Your task to perform on an android device: allow cookies in the chrome app Image 0: 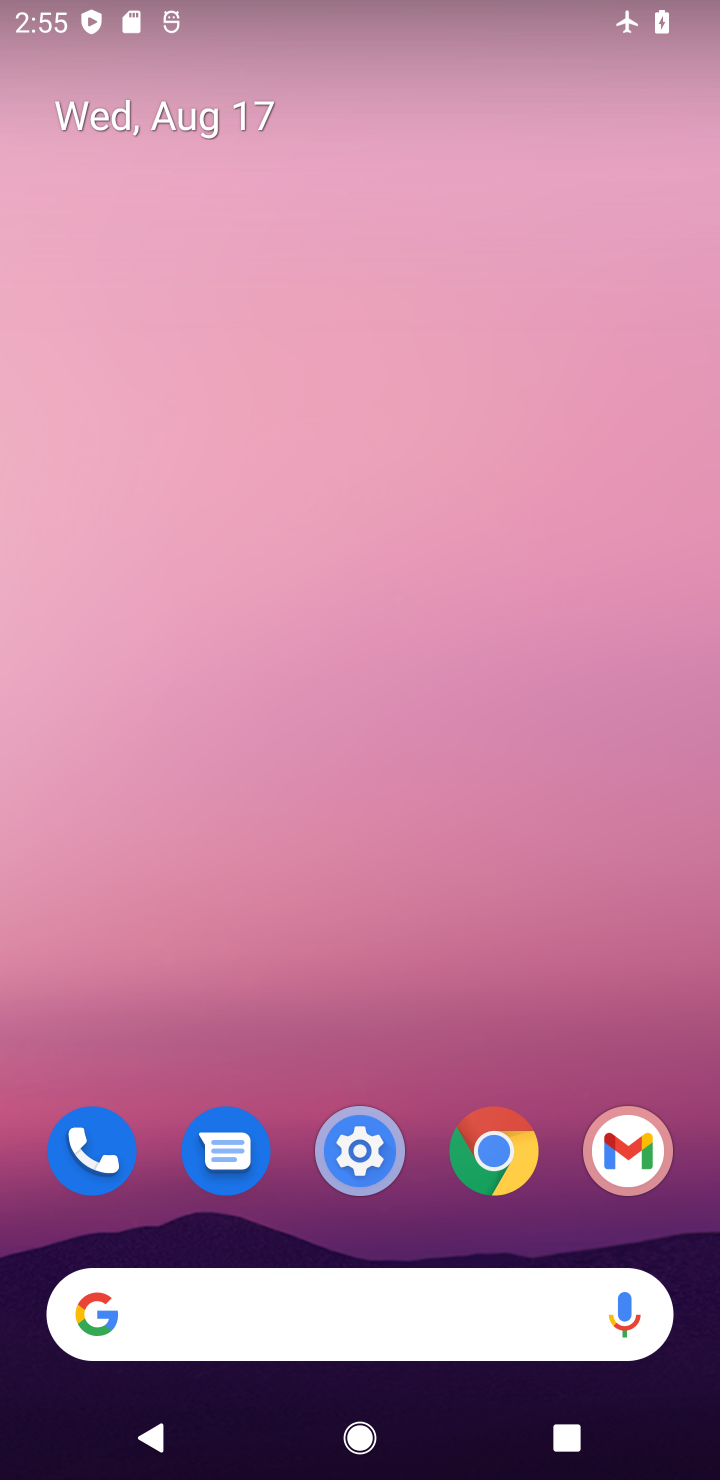
Step 0: drag from (374, 1079) to (397, 388)
Your task to perform on an android device: allow cookies in the chrome app Image 1: 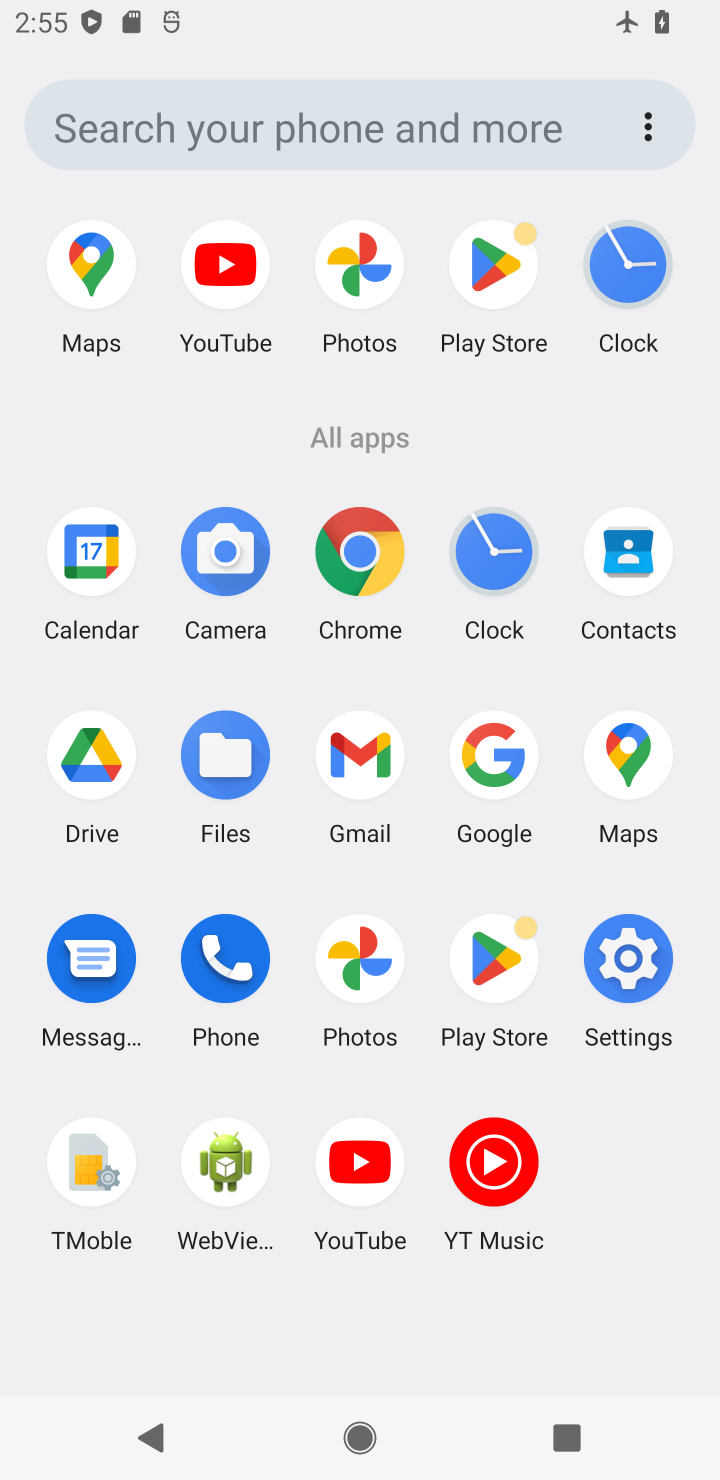
Step 1: click (354, 551)
Your task to perform on an android device: allow cookies in the chrome app Image 2: 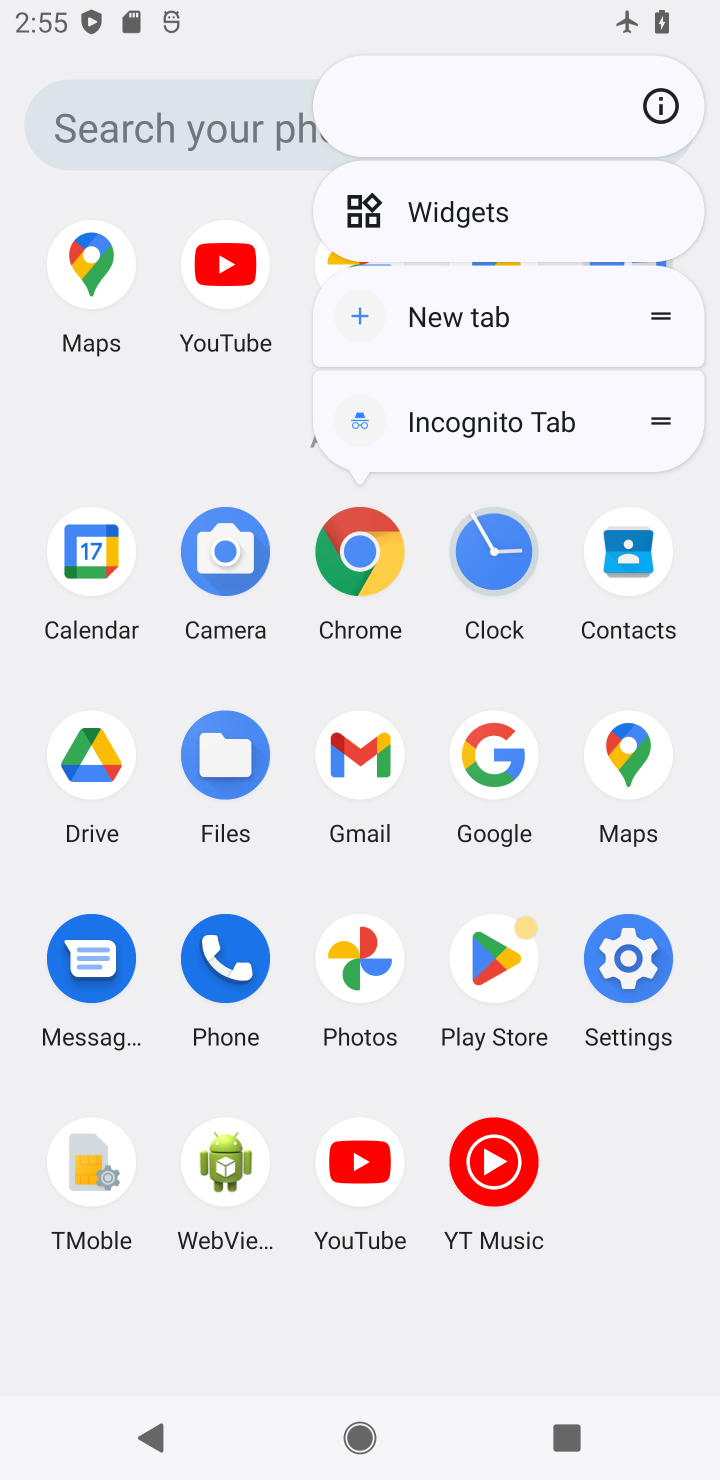
Step 2: click (354, 551)
Your task to perform on an android device: allow cookies in the chrome app Image 3: 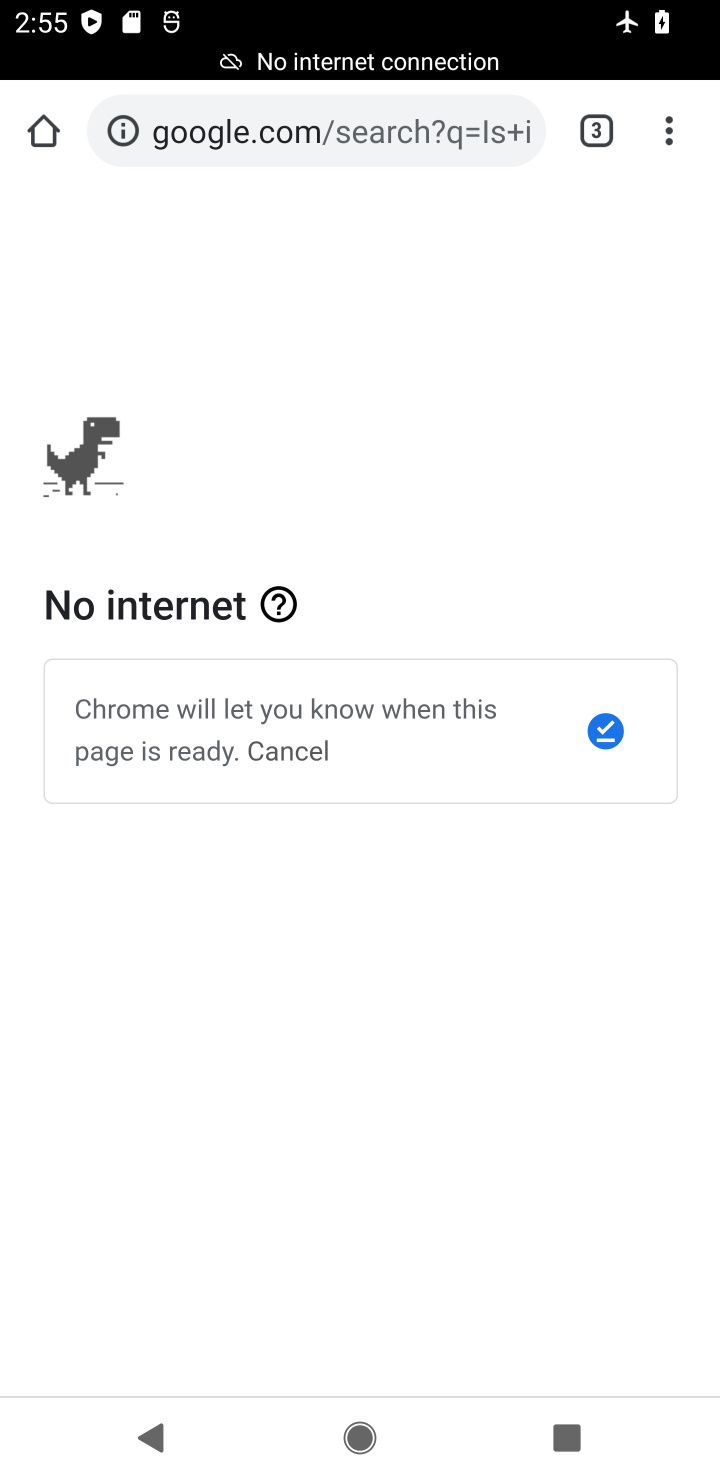
Step 3: click (655, 138)
Your task to perform on an android device: allow cookies in the chrome app Image 4: 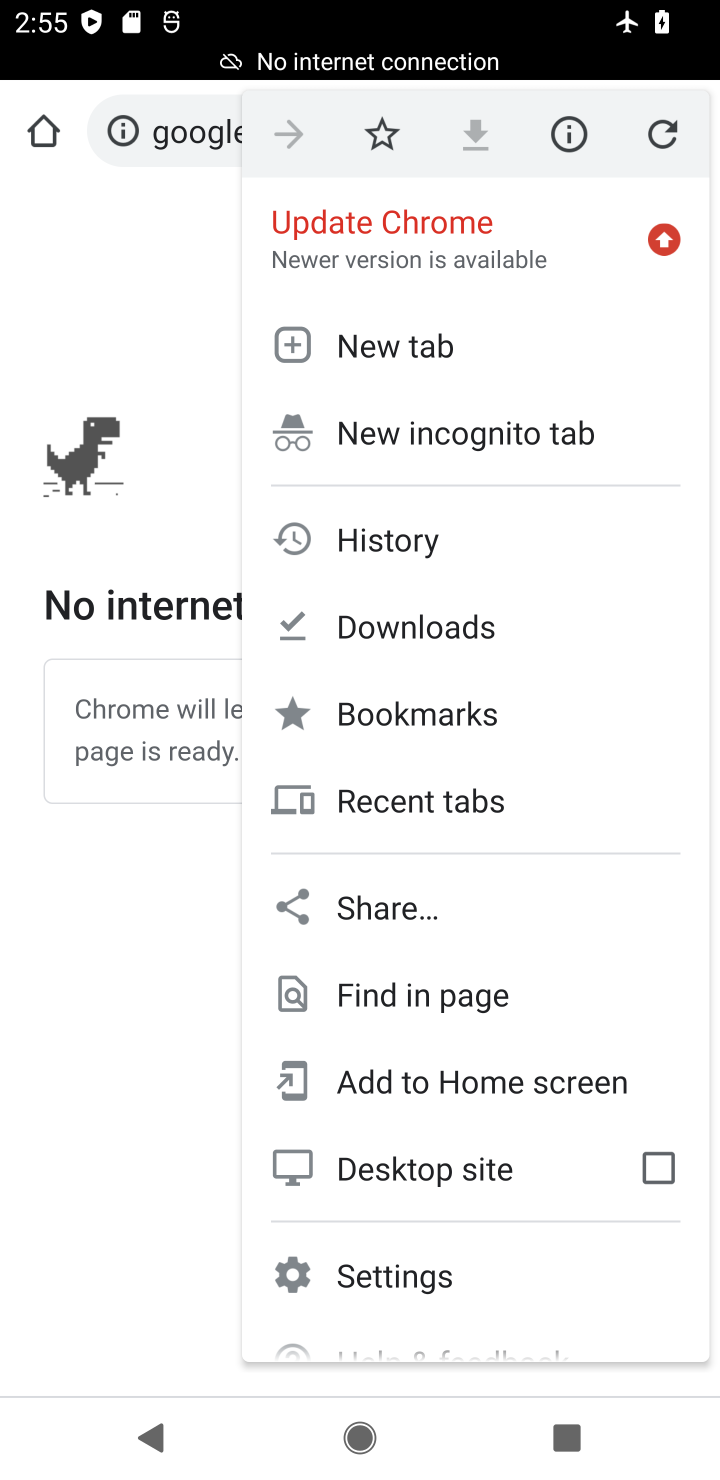
Step 4: click (402, 1283)
Your task to perform on an android device: allow cookies in the chrome app Image 5: 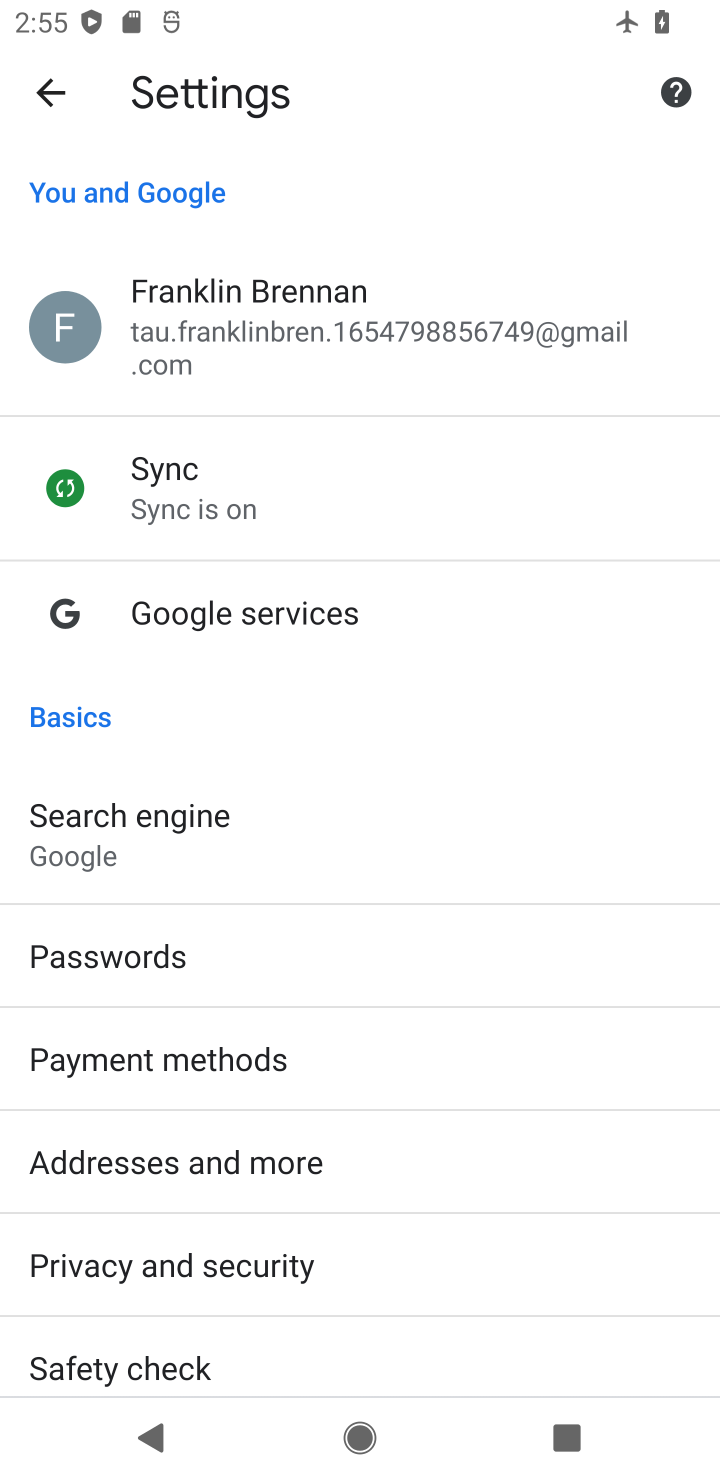
Step 5: click (171, 1272)
Your task to perform on an android device: allow cookies in the chrome app Image 6: 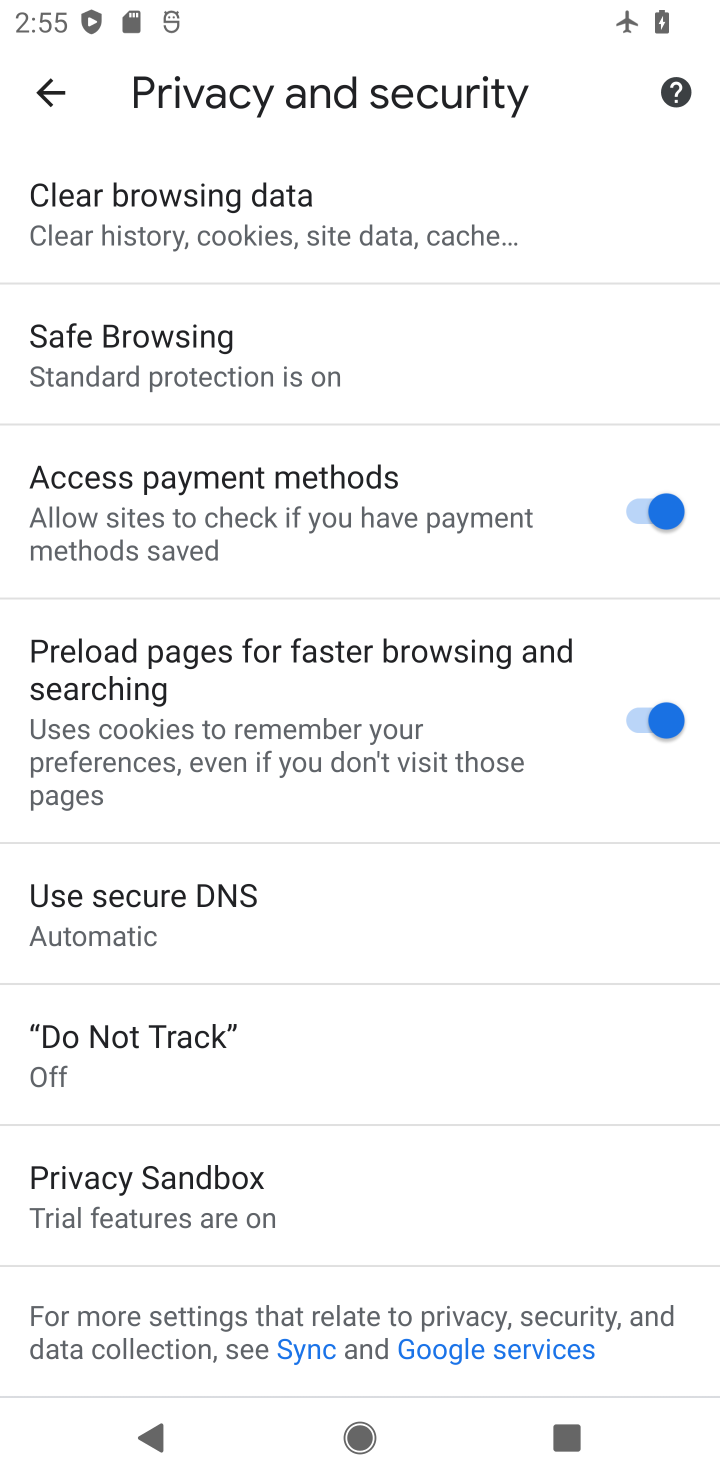
Step 6: click (72, 106)
Your task to perform on an android device: allow cookies in the chrome app Image 7: 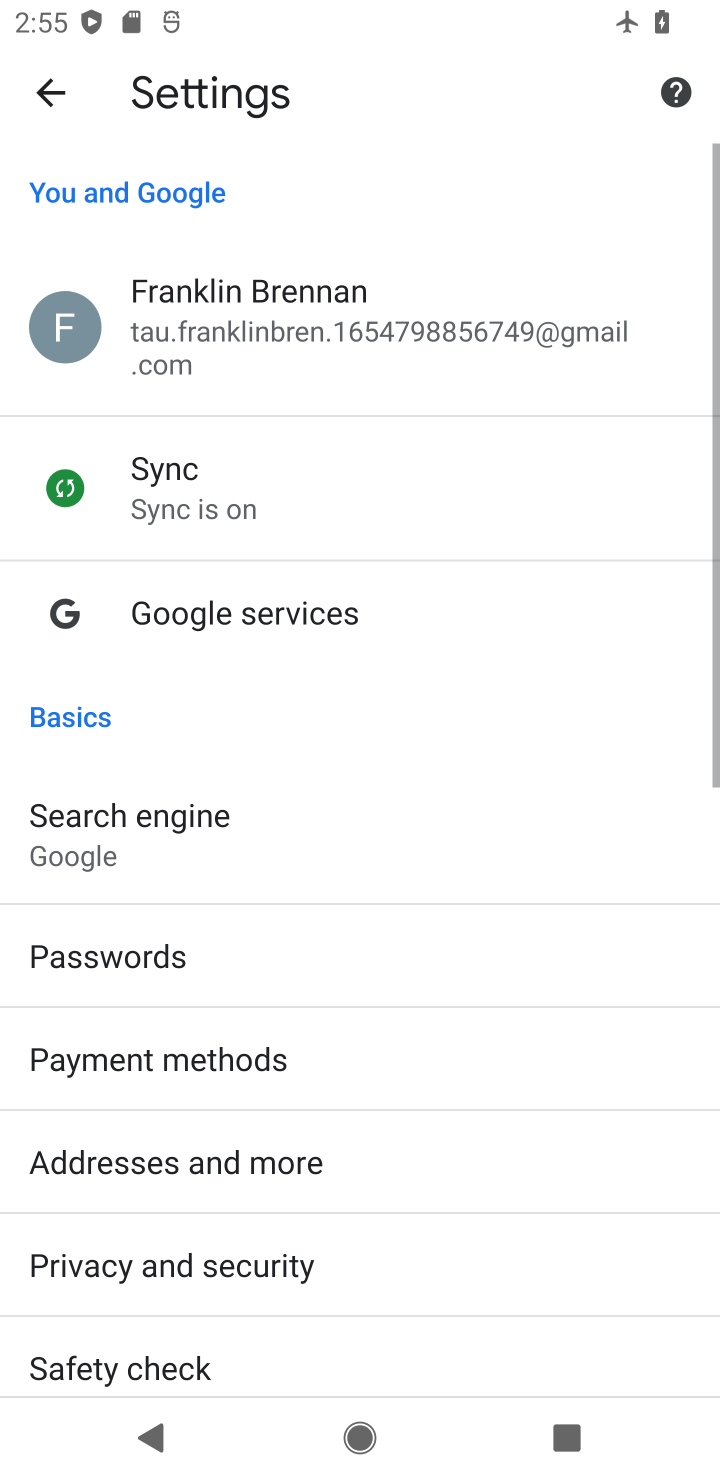
Step 7: drag from (315, 1202) to (376, 325)
Your task to perform on an android device: allow cookies in the chrome app Image 8: 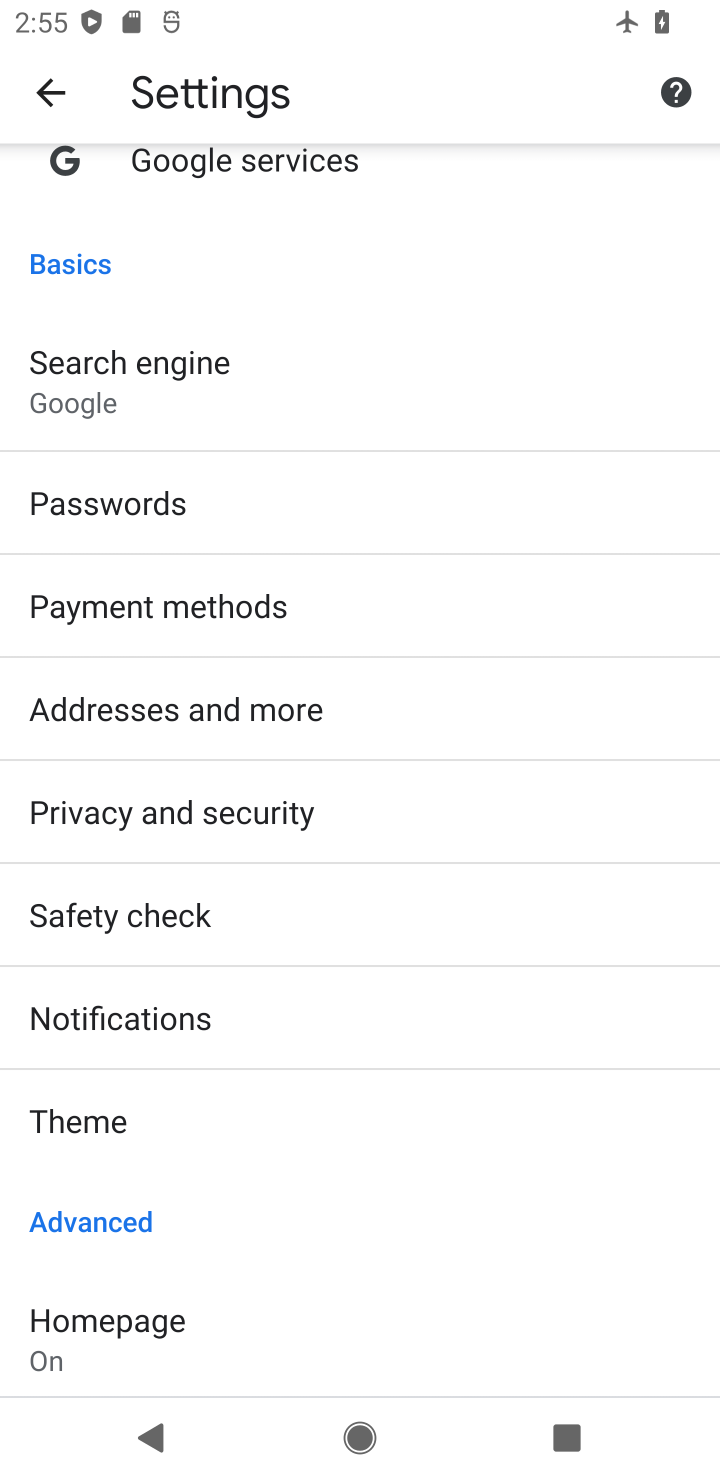
Step 8: drag from (189, 1223) to (348, 382)
Your task to perform on an android device: allow cookies in the chrome app Image 9: 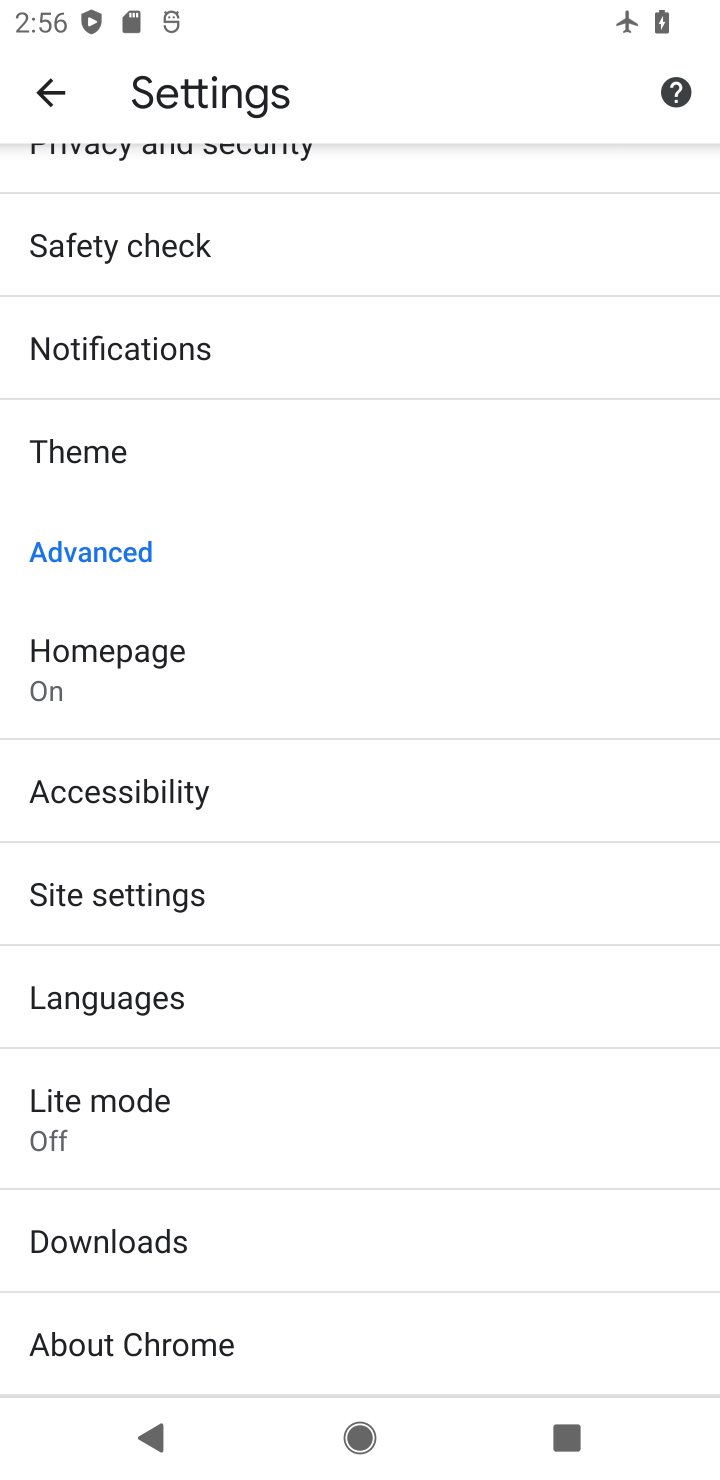
Step 9: click (233, 888)
Your task to perform on an android device: allow cookies in the chrome app Image 10: 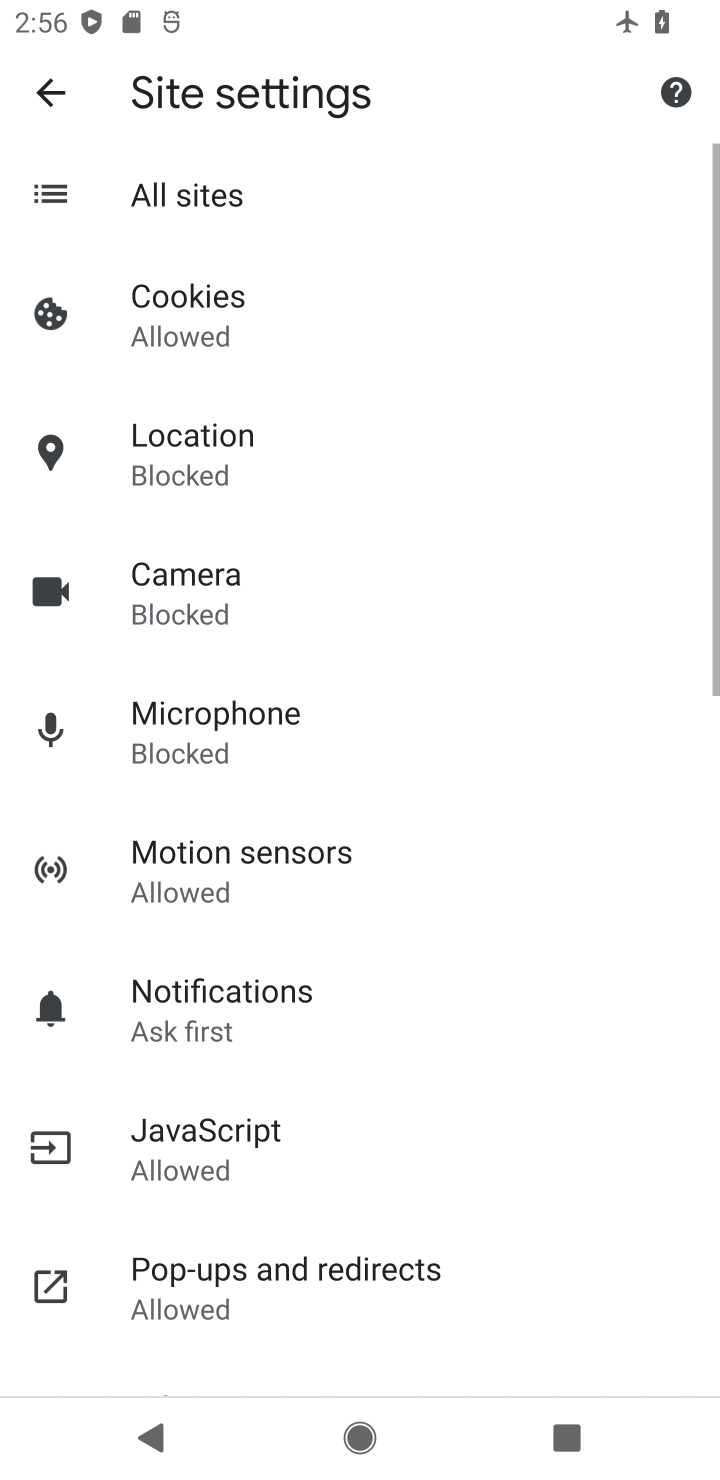
Step 10: click (232, 290)
Your task to perform on an android device: allow cookies in the chrome app Image 11: 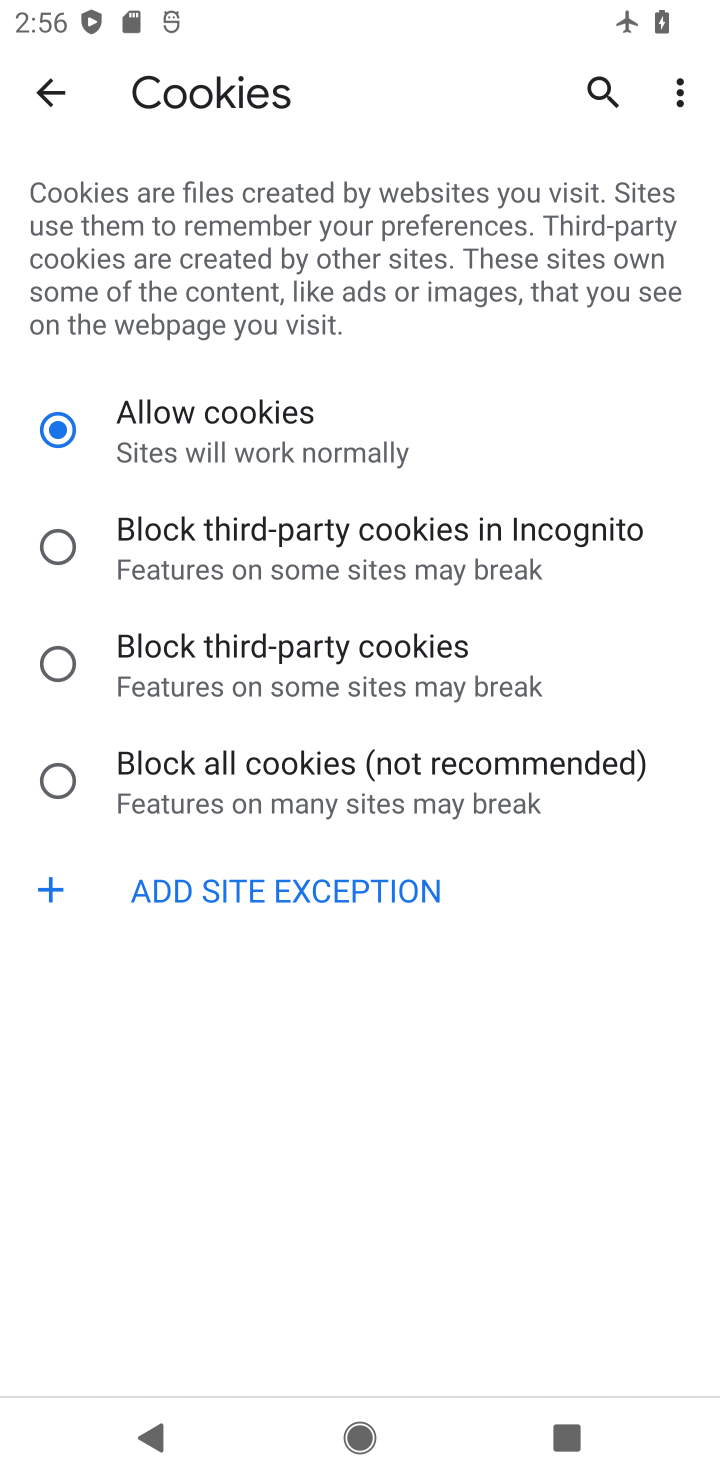
Step 11: task complete